Your task to perform on an android device: Open Google Chrome and click the shortcut for Amazon.com Image 0: 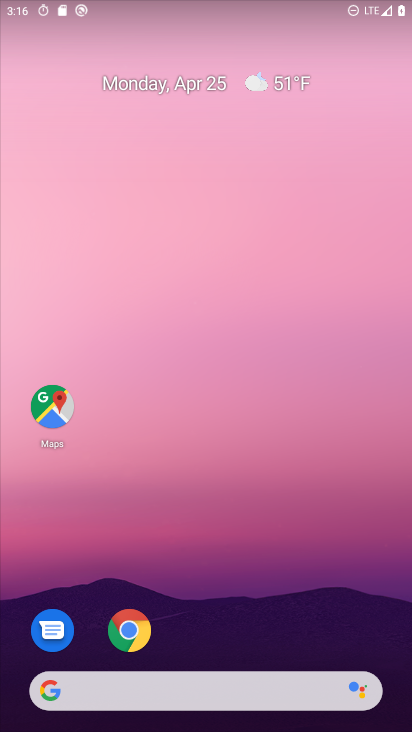
Step 0: drag from (199, 624) to (293, 309)
Your task to perform on an android device: Open Google Chrome and click the shortcut for Amazon.com Image 1: 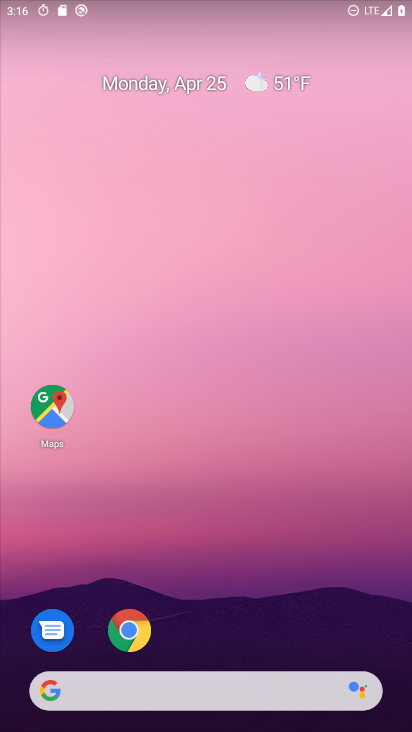
Step 1: drag from (170, 658) to (198, 365)
Your task to perform on an android device: Open Google Chrome and click the shortcut for Amazon.com Image 2: 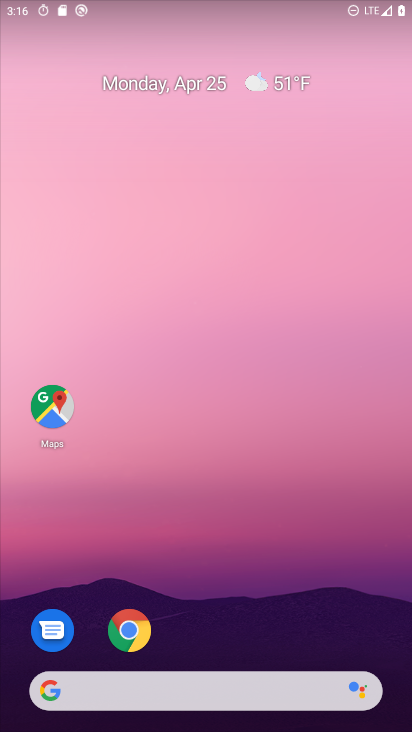
Step 2: click (130, 627)
Your task to perform on an android device: Open Google Chrome and click the shortcut for Amazon.com Image 3: 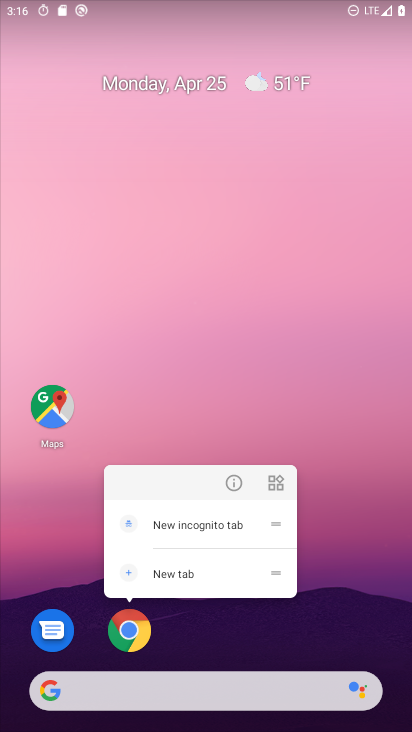
Step 3: click (232, 480)
Your task to perform on an android device: Open Google Chrome and click the shortcut for Amazon.com Image 4: 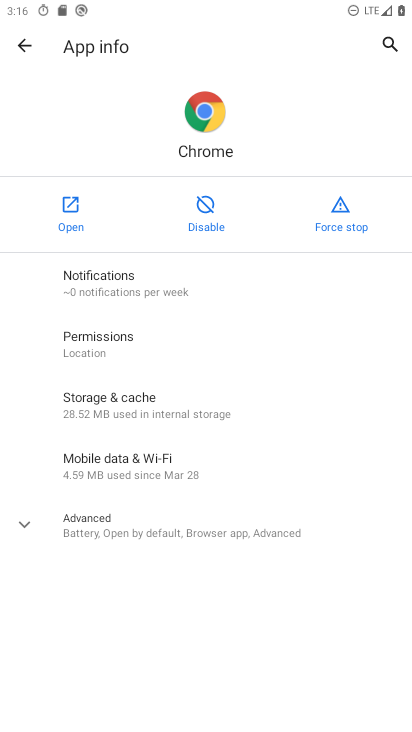
Step 4: click (62, 217)
Your task to perform on an android device: Open Google Chrome and click the shortcut for Amazon.com Image 5: 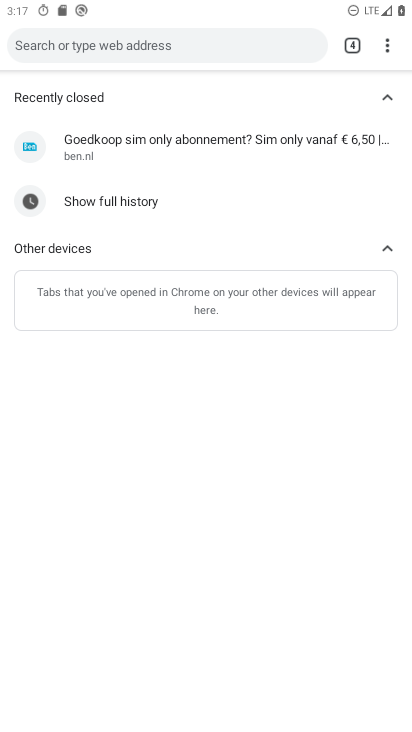
Step 5: click (346, 49)
Your task to perform on an android device: Open Google Chrome and click the shortcut for Amazon.com Image 6: 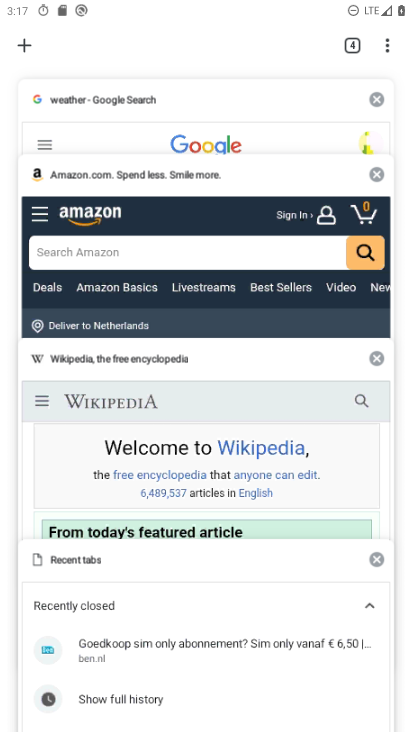
Step 6: click (27, 48)
Your task to perform on an android device: Open Google Chrome and click the shortcut for Amazon.com Image 7: 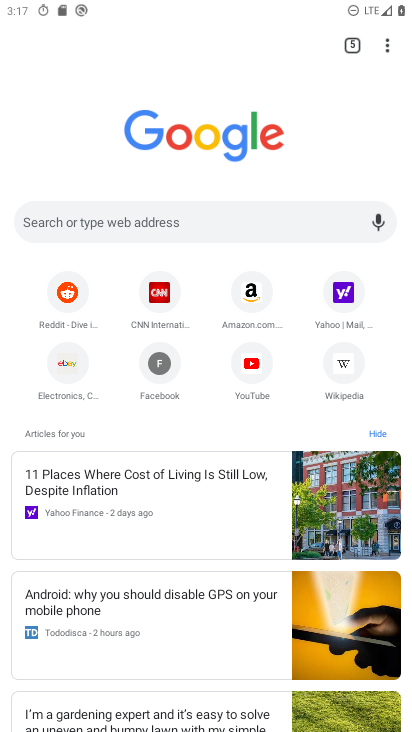
Step 7: click (259, 286)
Your task to perform on an android device: Open Google Chrome and click the shortcut for Amazon.com Image 8: 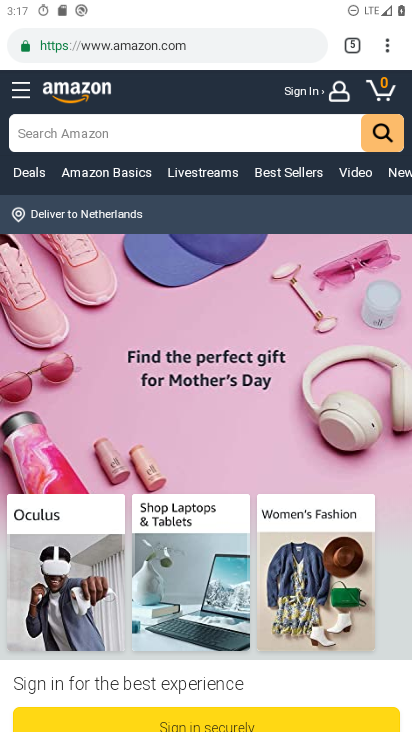
Step 8: drag from (182, 619) to (187, 287)
Your task to perform on an android device: Open Google Chrome and click the shortcut for Amazon.com Image 9: 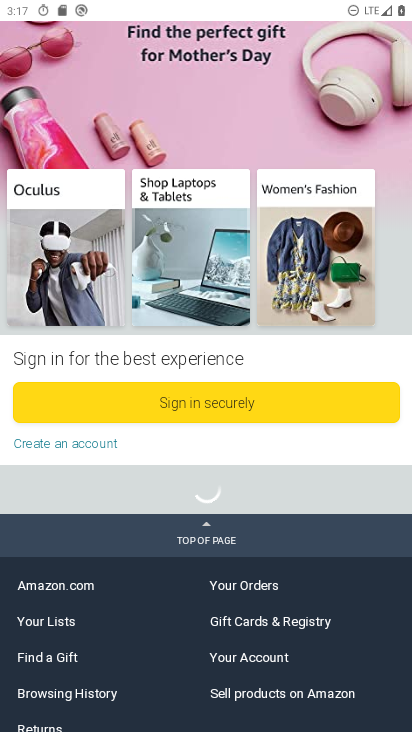
Step 9: drag from (236, 341) to (289, 729)
Your task to perform on an android device: Open Google Chrome and click the shortcut for Amazon.com Image 10: 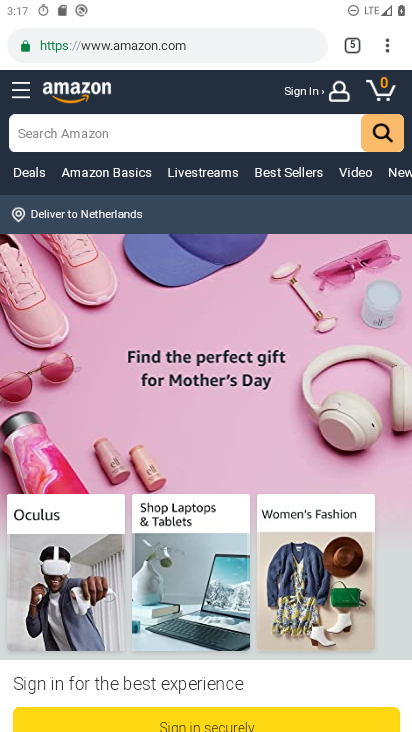
Step 10: drag from (388, 41) to (200, 41)
Your task to perform on an android device: Open Google Chrome and click the shortcut for Amazon.com Image 11: 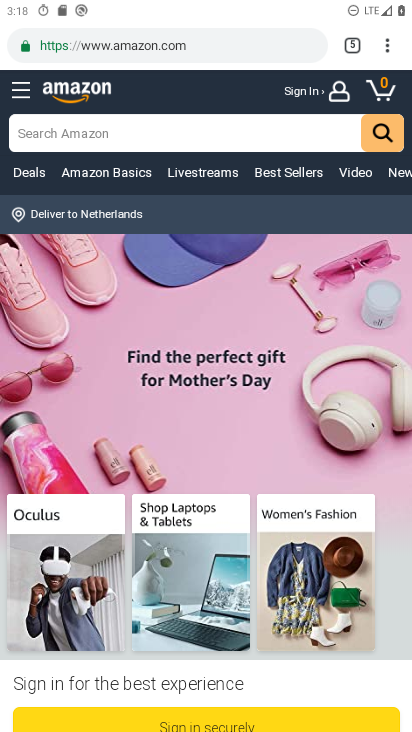
Step 11: click (348, 54)
Your task to perform on an android device: Open Google Chrome and click the shortcut for Amazon.com Image 12: 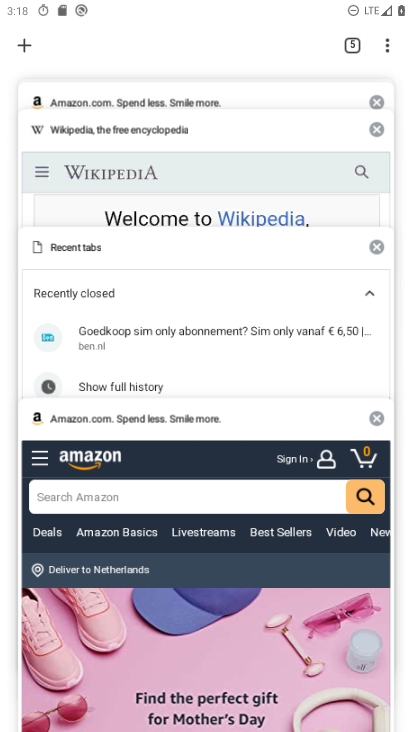
Step 12: click (26, 43)
Your task to perform on an android device: Open Google Chrome and click the shortcut for Amazon.com Image 13: 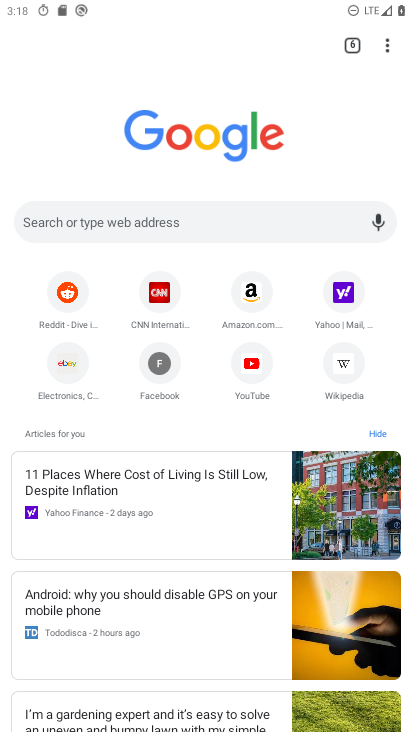
Step 13: drag from (185, 606) to (249, 146)
Your task to perform on an android device: Open Google Chrome and click the shortcut for Amazon.com Image 14: 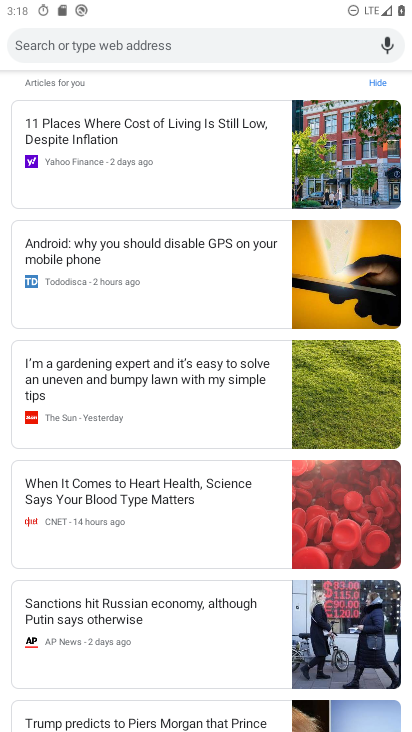
Step 14: drag from (219, 234) to (293, 730)
Your task to perform on an android device: Open Google Chrome and click the shortcut for Amazon.com Image 15: 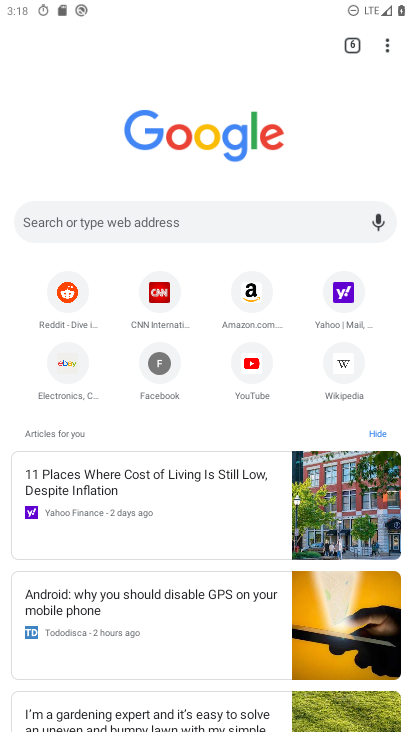
Step 15: click (233, 285)
Your task to perform on an android device: Open Google Chrome and click the shortcut for Amazon.com Image 16: 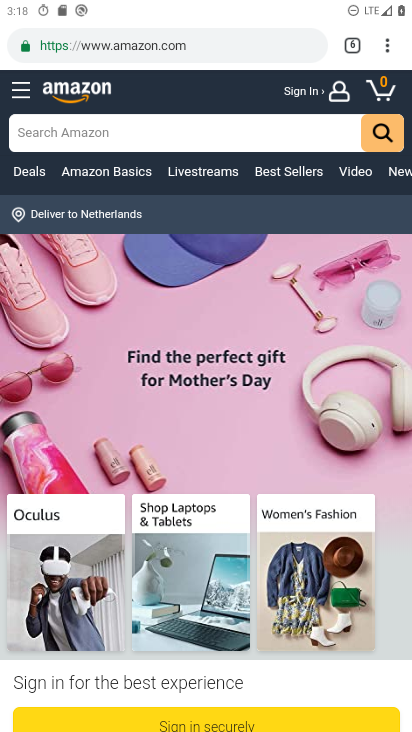
Step 16: task complete